Your task to perform on an android device: When is my next meeting? Image 0: 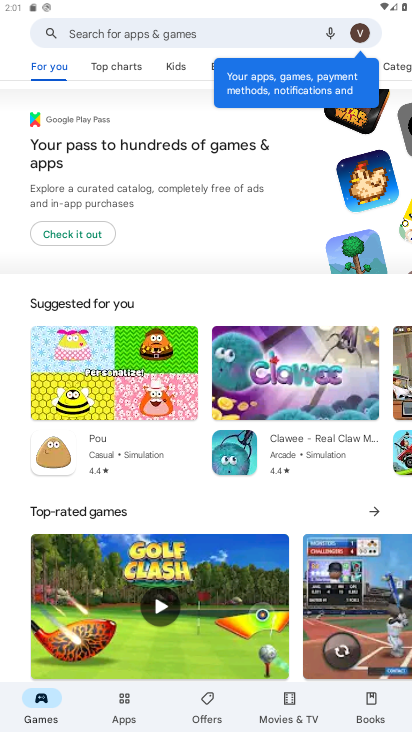
Step 0: press home button
Your task to perform on an android device: When is my next meeting? Image 1: 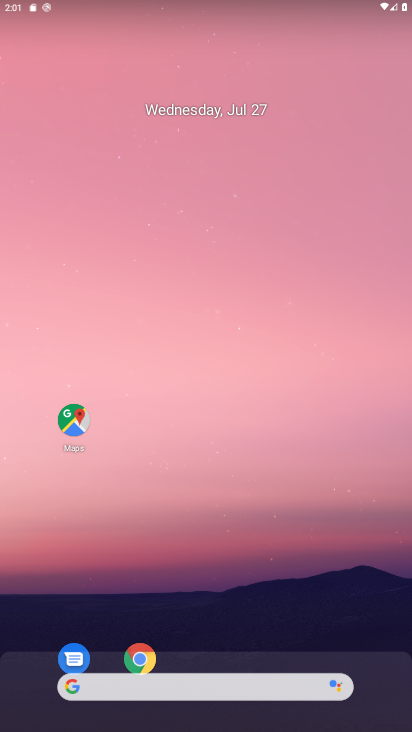
Step 1: drag from (211, 531) to (231, 0)
Your task to perform on an android device: When is my next meeting? Image 2: 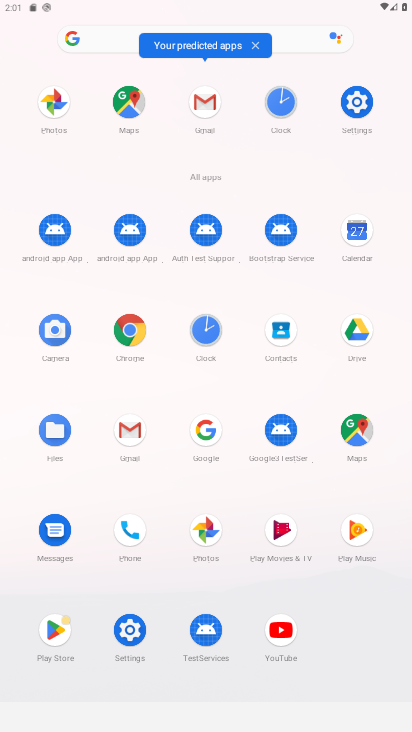
Step 2: click (360, 235)
Your task to perform on an android device: When is my next meeting? Image 3: 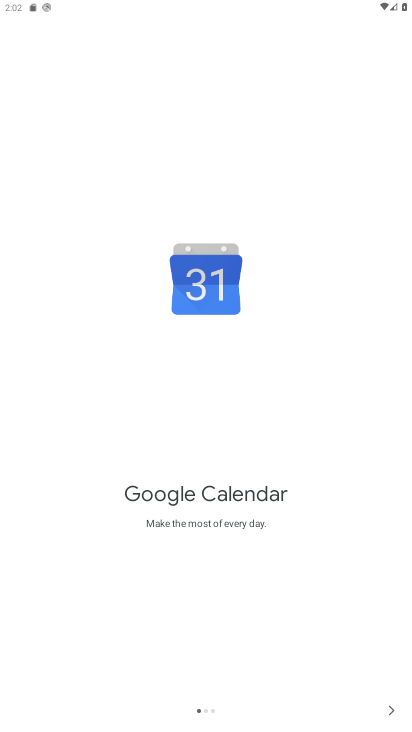
Step 3: click (400, 704)
Your task to perform on an android device: When is my next meeting? Image 4: 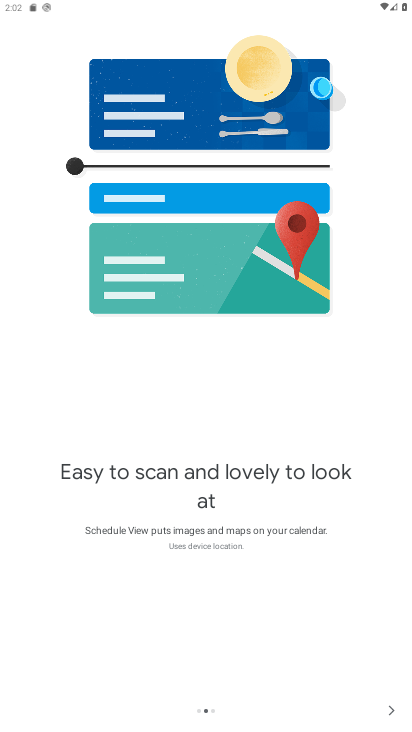
Step 4: click (390, 702)
Your task to perform on an android device: When is my next meeting? Image 5: 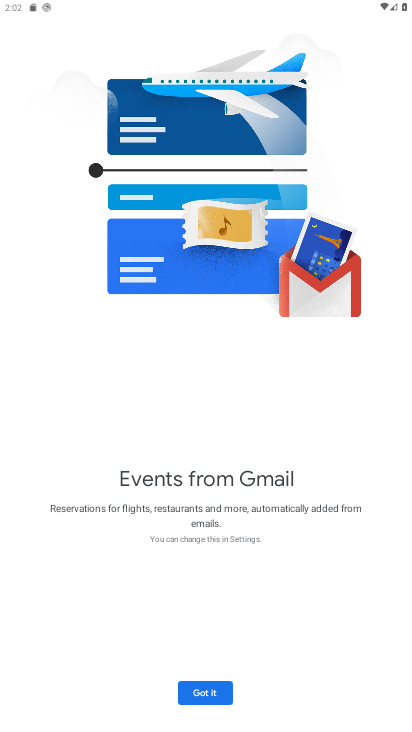
Step 5: click (215, 683)
Your task to perform on an android device: When is my next meeting? Image 6: 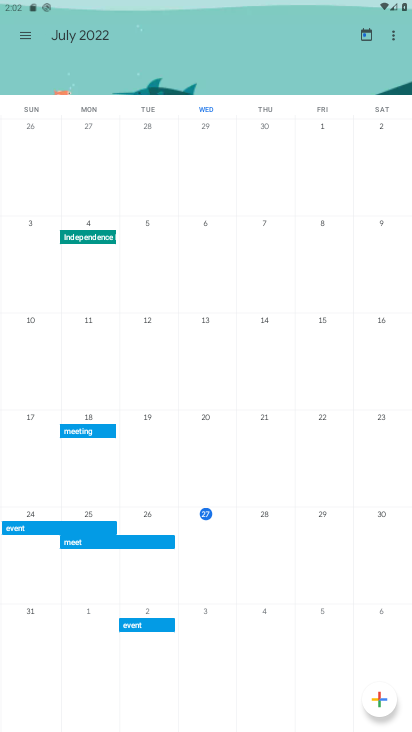
Step 6: click (204, 513)
Your task to perform on an android device: When is my next meeting? Image 7: 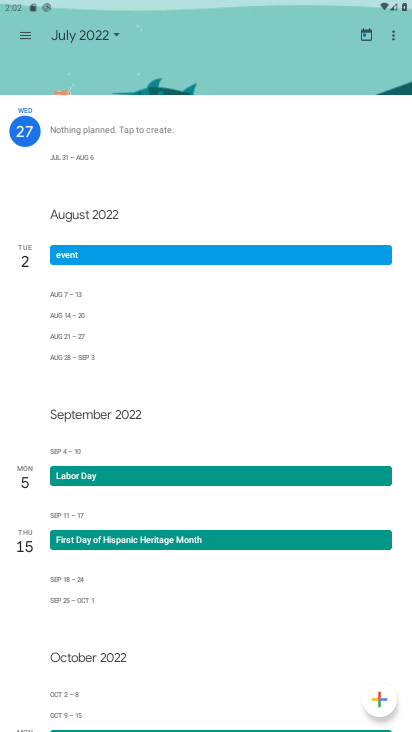
Step 7: task complete